Your task to perform on an android device: Open battery settings Image 0: 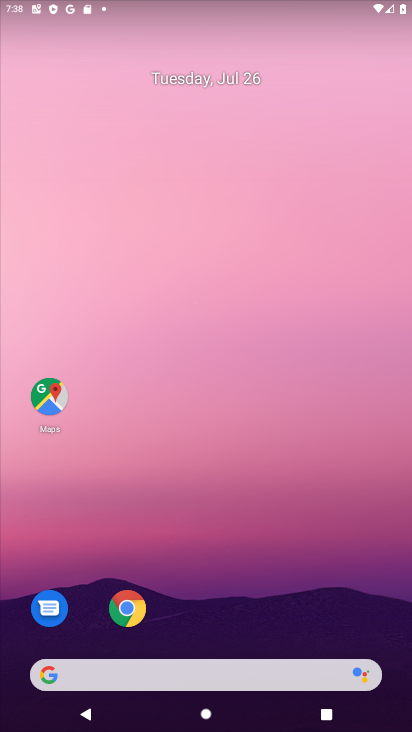
Step 0: drag from (259, 609) to (194, 138)
Your task to perform on an android device: Open battery settings Image 1: 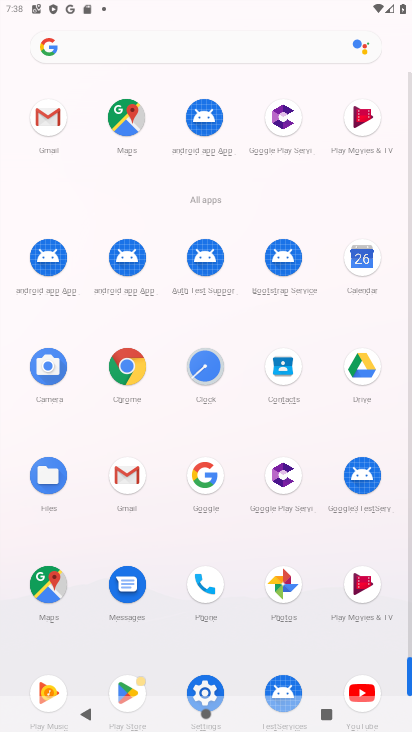
Step 1: click (212, 684)
Your task to perform on an android device: Open battery settings Image 2: 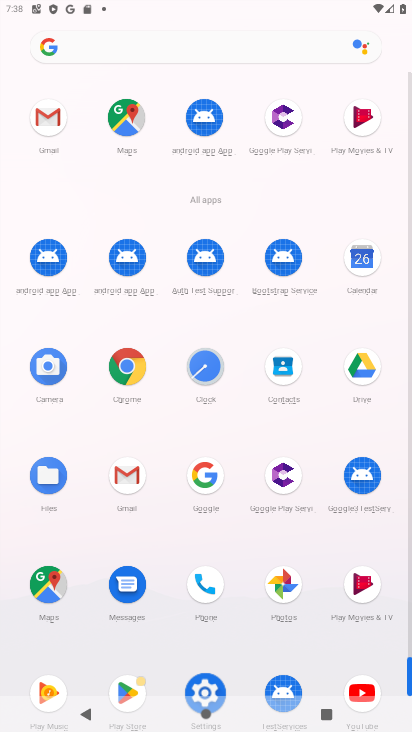
Step 2: click (212, 684)
Your task to perform on an android device: Open battery settings Image 3: 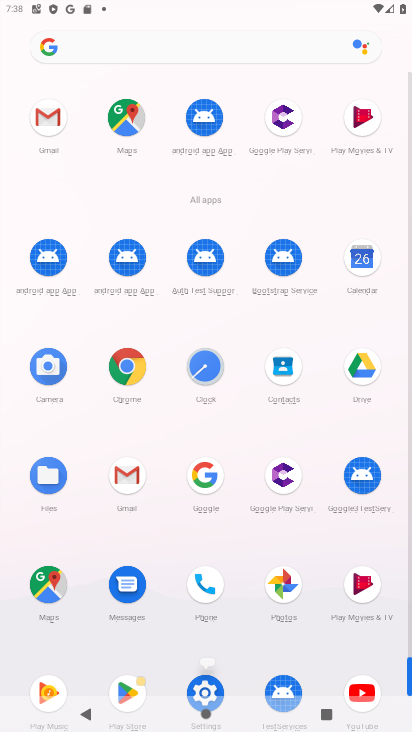
Step 3: click (212, 684)
Your task to perform on an android device: Open battery settings Image 4: 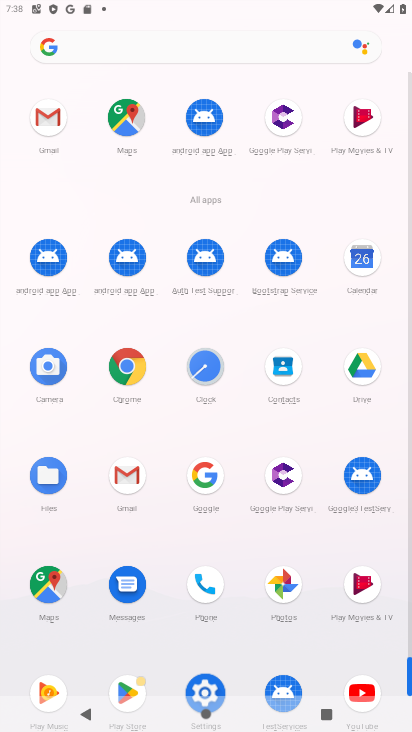
Step 4: click (212, 684)
Your task to perform on an android device: Open battery settings Image 5: 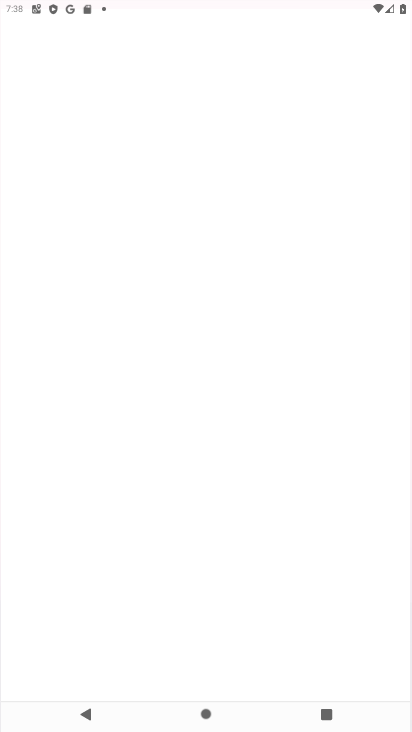
Step 5: click (214, 680)
Your task to perform on an android device: Open battery settings Image 6: 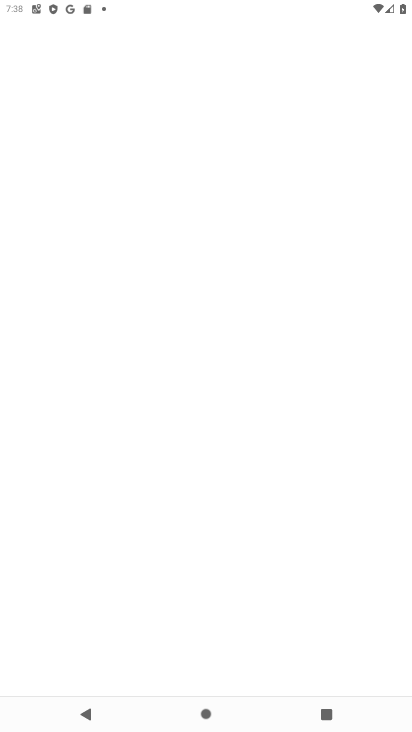
Step 6: click (214, 680)
Your task to perform on an android device: Open battery settings Image 7: 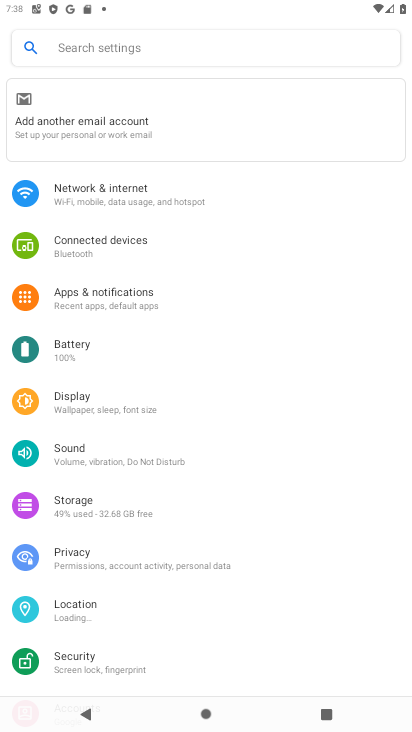
Step 7: click (58, 349)
Your task to perform on an android device: Open battery settings Image 8: 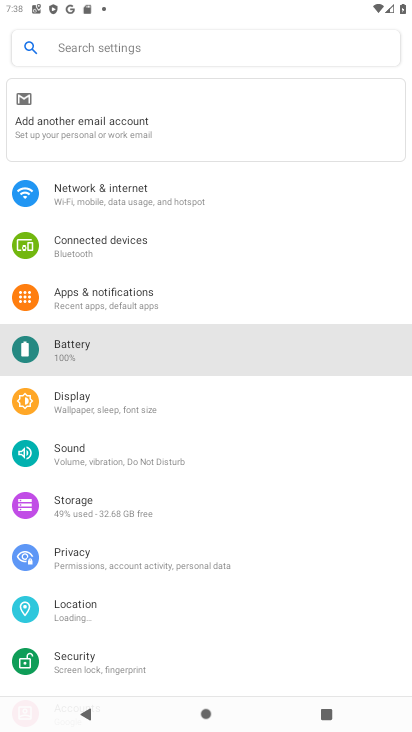
Step 8: click (58, 349)
Your task to perform on an android device: Open battery settings Image 9: 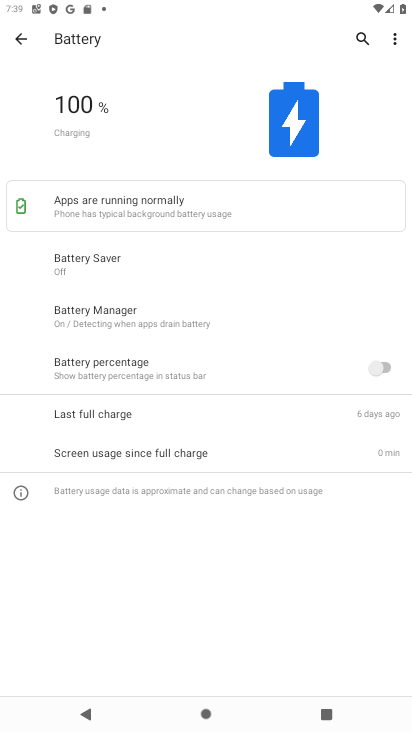
Step 9: task complete